Your task to perform on an android device: What's the weather? Image 0: 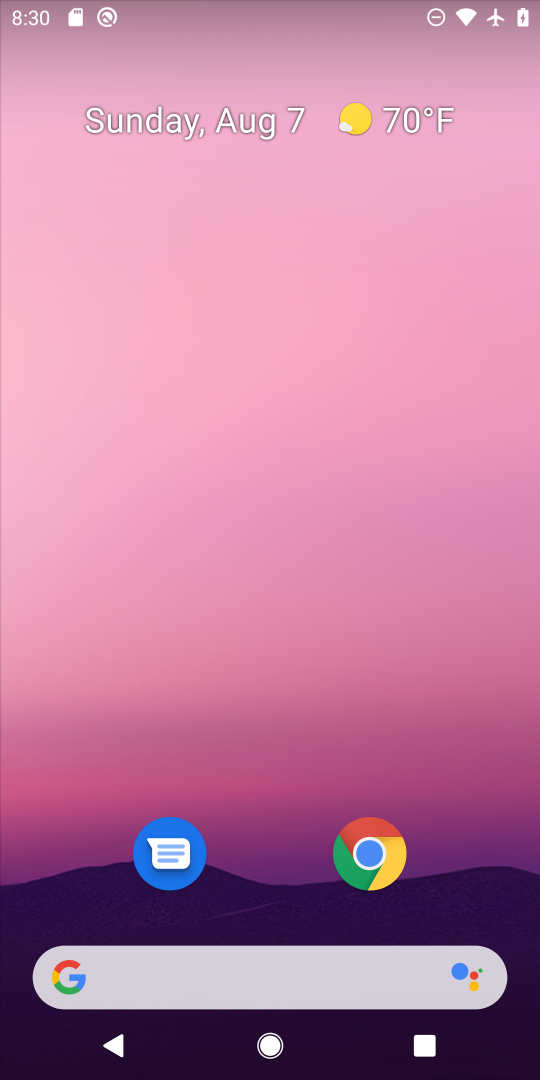
Step 0: drag from (284, 899) to (415, 67)
Your task to perform on an android device: What's the weather? Image 1: 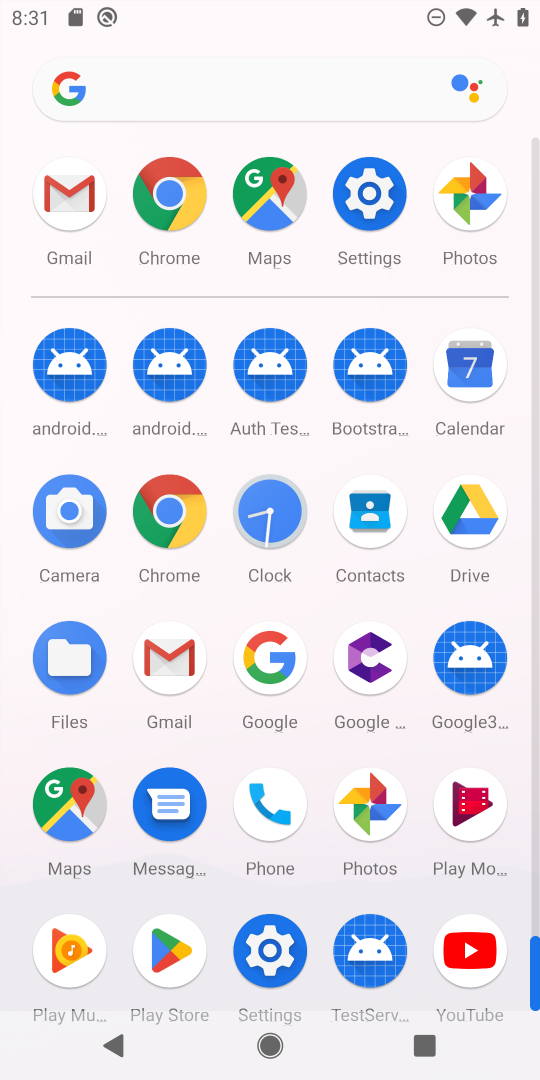
Step 1: click (269, 682)
Your task to perform on an android device: What's the weather? Image 2: 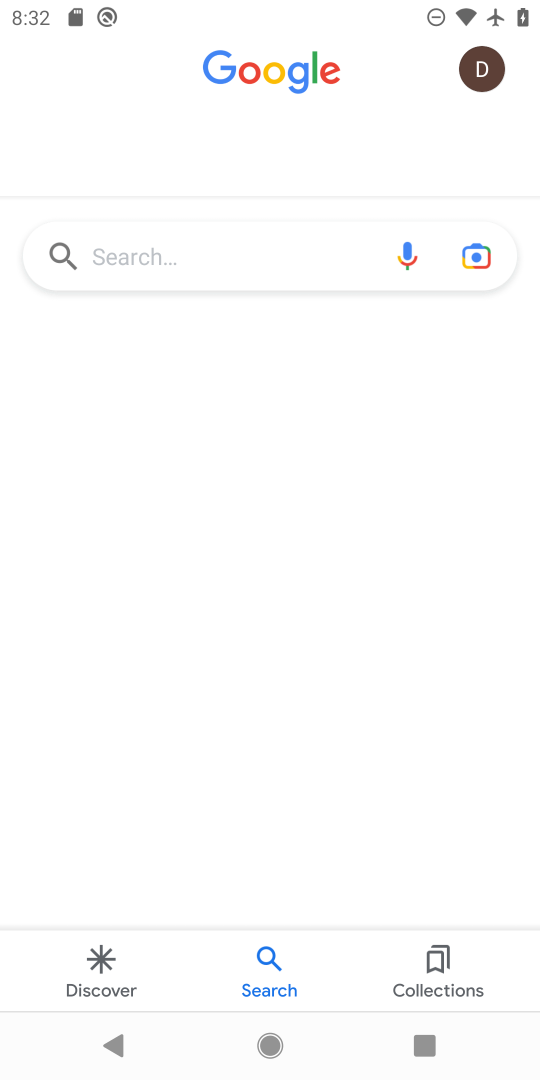
Step 2: click (263, 251)
Your task to perform on an android device: What's the weather? Image 3: 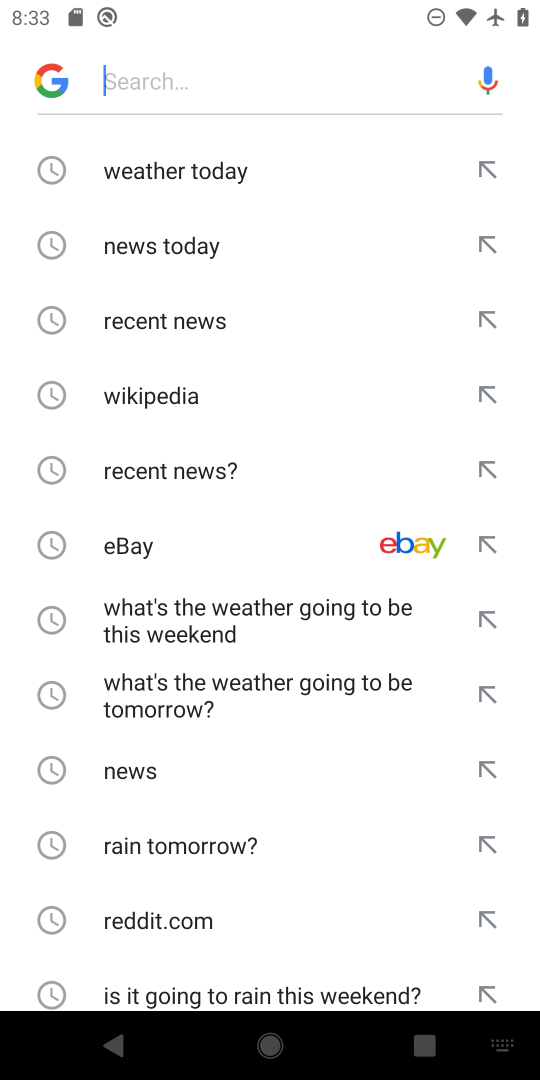
Step 3: click (238, 168)
Your task to perform on an android device: What's the weather? Image 4: 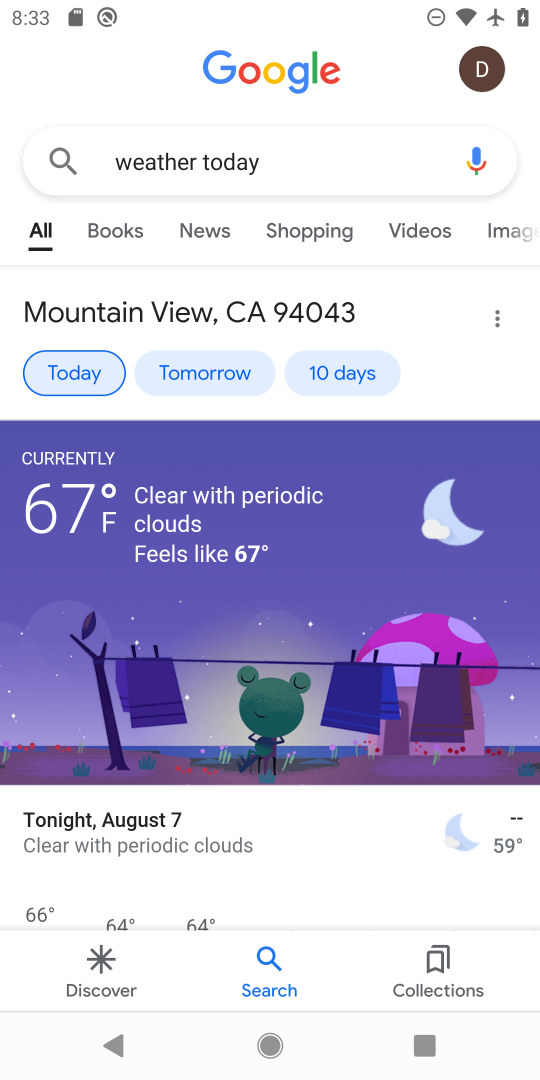
Step 4: task complete